Your task to perform on an android device: Go to notification settings Image 0: 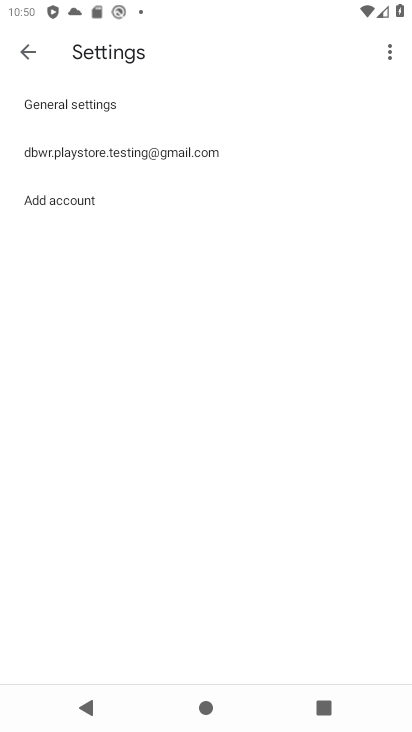
Step 0: press home button
Your task to perform on an android device: Go to notification settings Image 1: 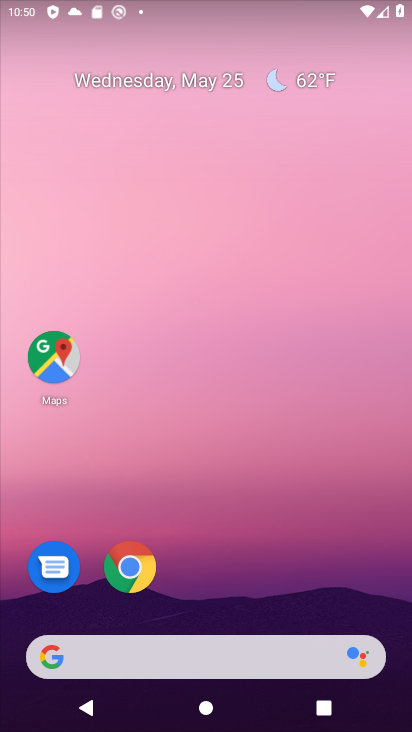
Step 1: drag from (383, 627) to (322, 1)
Your task to perform on an android device: Go to notification settings Image 2: 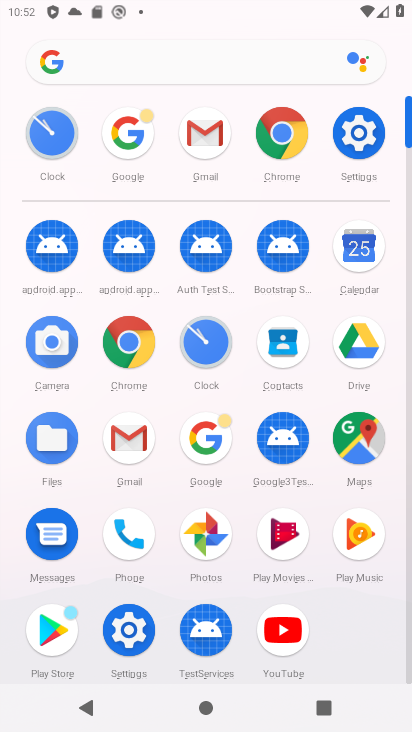
Step 2: click (375, 132)
Your task to perform on an android device: Go to notification settings Image 3: 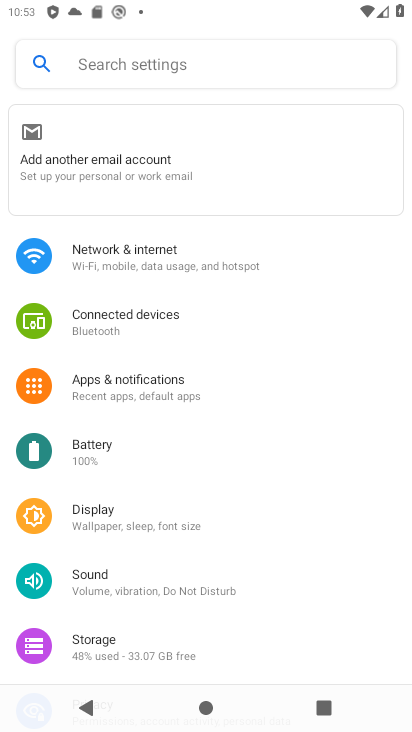
Step 3: click (171, 390)
Your task to perform on an android device: Go to notification settings Image 4: 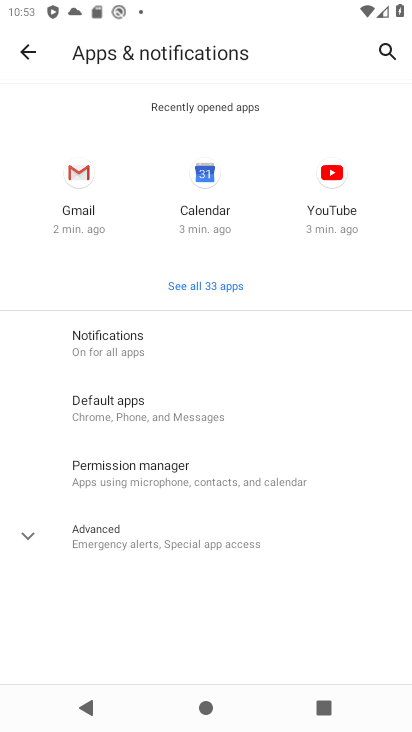
Step 4: click (217, 347)
Your task to perform on an android device: Go to notification settings Image 5: 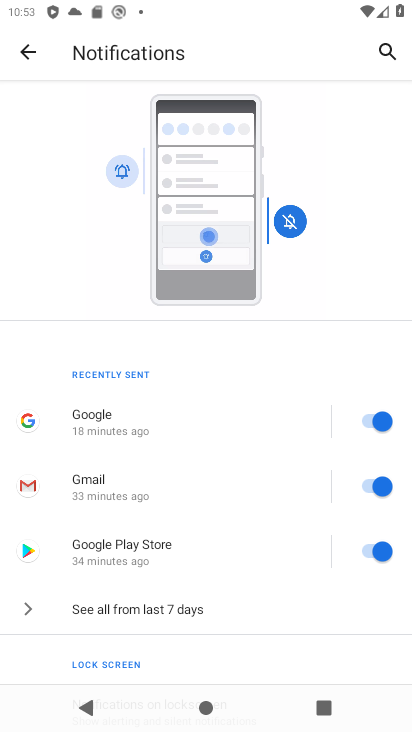
Step 5: task complete